Your task to perform on an android device: What's the weather today? Image 0: 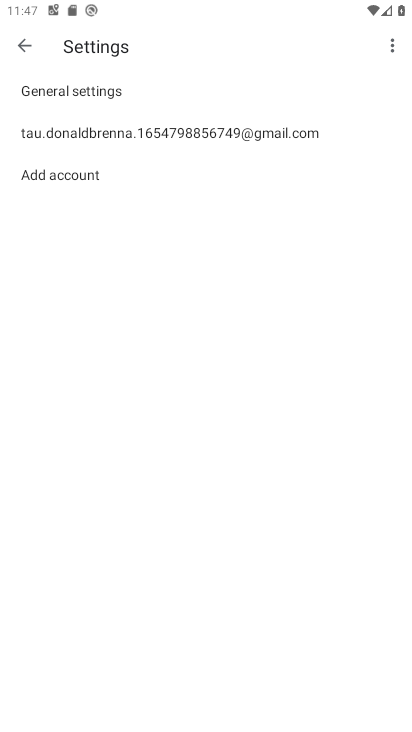
Step 0: press home button
Your task to perform on an android device: What's the weather today? Image 1: 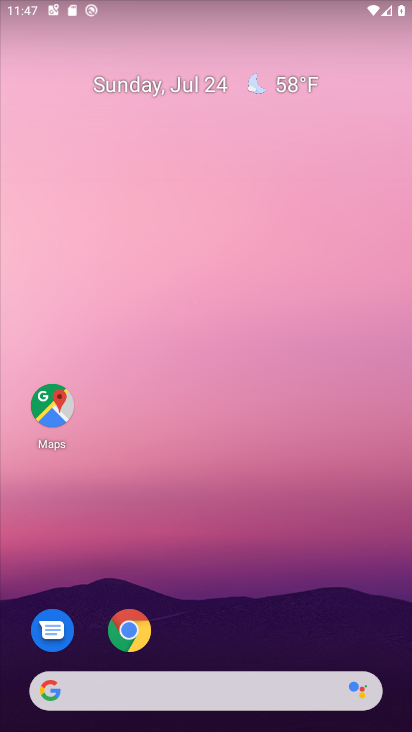
Step 1: click (121, 691)
Your task to perform on an android device: What's the weather today? Image 2: 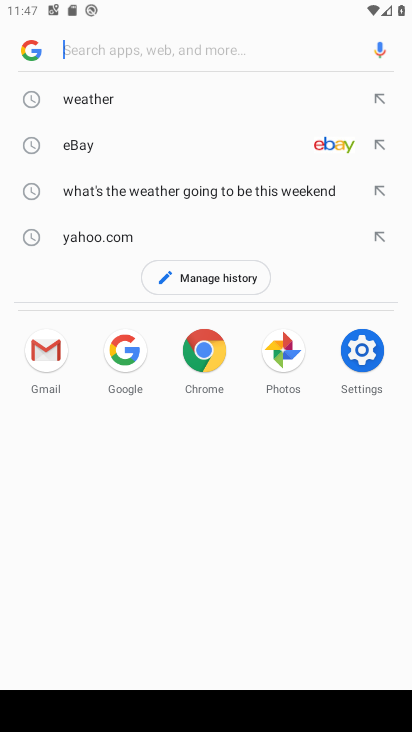
Step 2: click (93, 100)
Your task to perform on an android device: What's the weather today? Image 3: 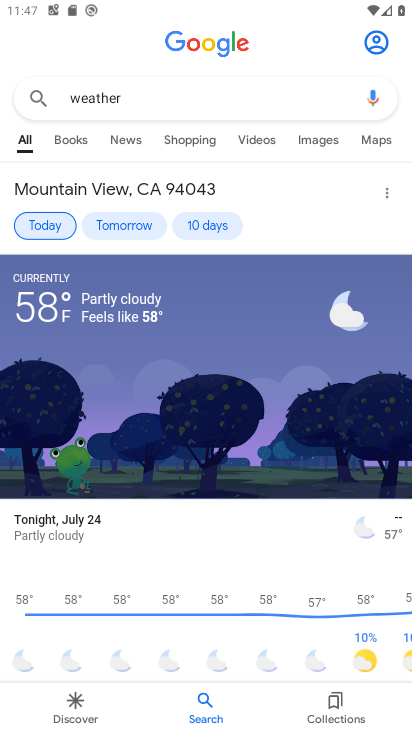
Step 3: task complete